Your task to perform on an android device: open a bookmark in the chrome app Image 0: 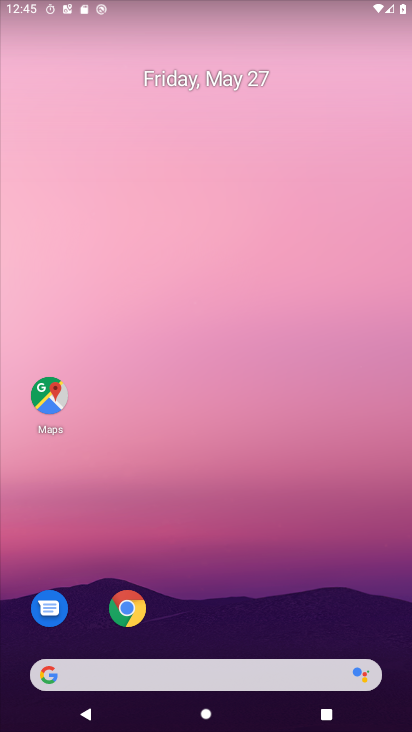
Step 0: click (115, 616)
Your task to perform on an android device: open a bookmark in the chrome app Image 1: 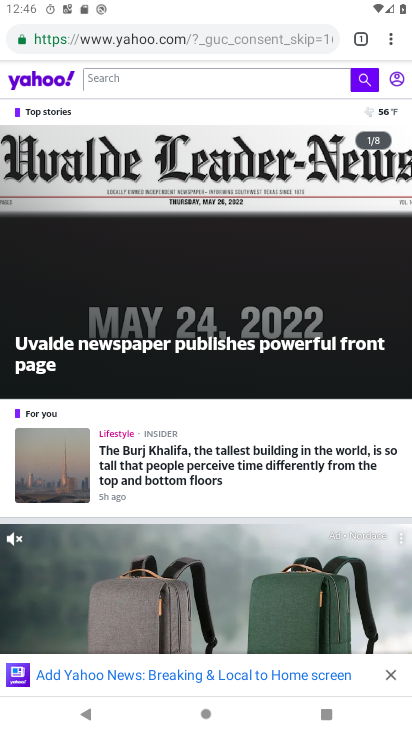
Step 1: click (391, 34)
Your task to perform on an android device: open a bookmark in the chrome app Image 2: 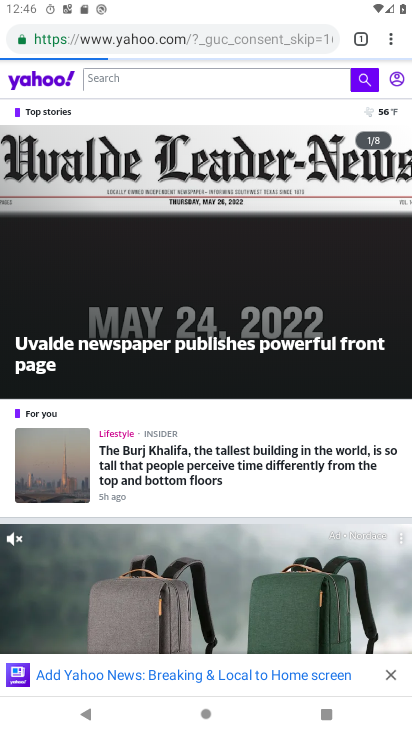
Step 2: click (387, 44)
Your task to perform on an android device: open a bookmark in the chrome app Image 3: 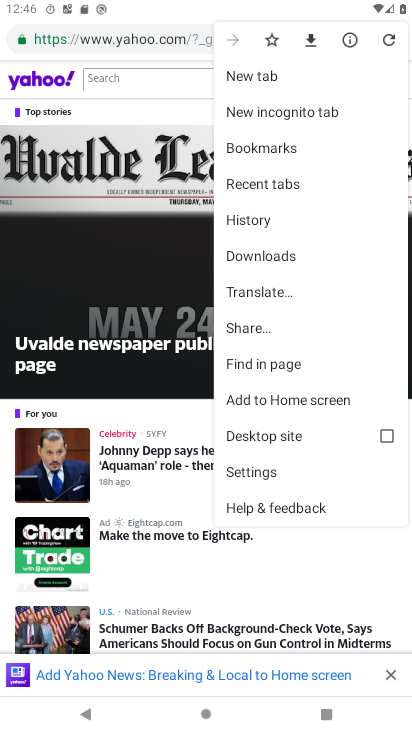
Step 3: click (253, 149)
Your task to perform on an android device: open a bookmark in the chrome app Image 4: 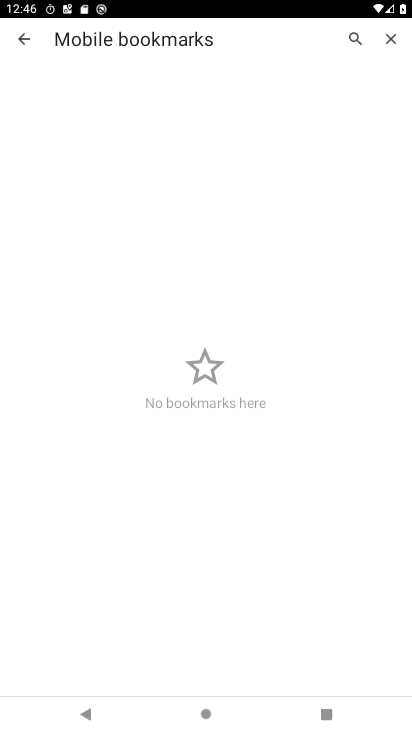
Step 4: task complete